Your task to perform on an android device: Open ESPN.com Image 0: 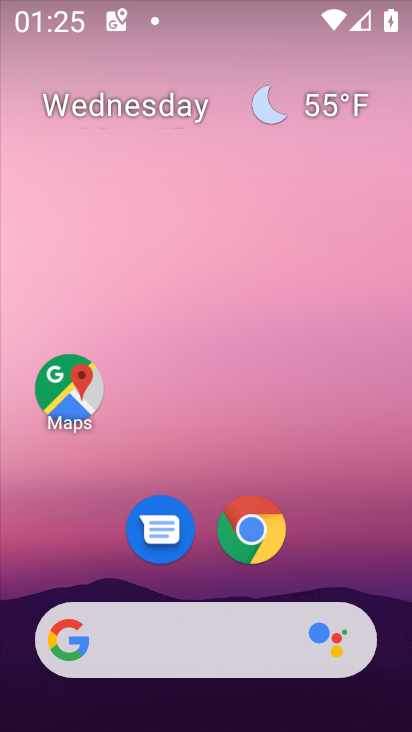
Step 0: click (251, 524)
Your task to perform on an android device: Open ESPN.com Image 1: 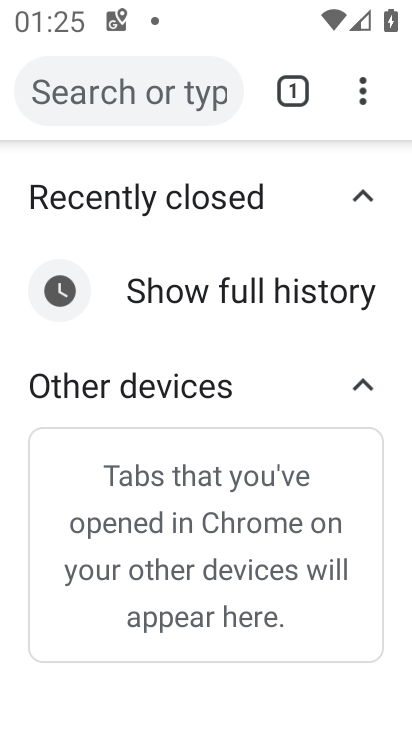
Step 1: click (363, 102)
Your task to perform on an android device: Open ESPN.com Image 2: 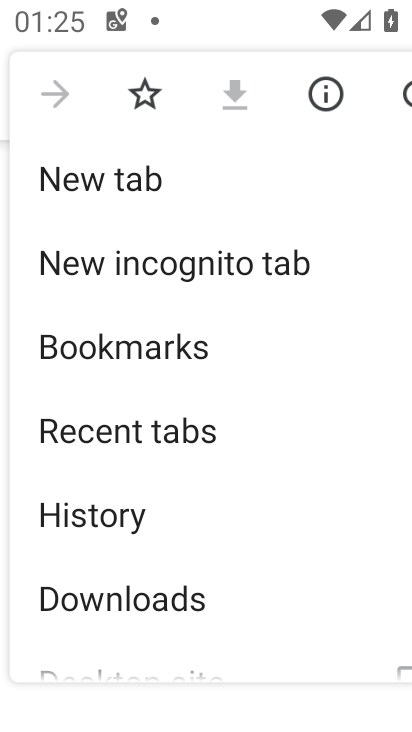
Step 2: click (120, 176)
Your task to perform on an android device: Open ESPN.com Image 3: 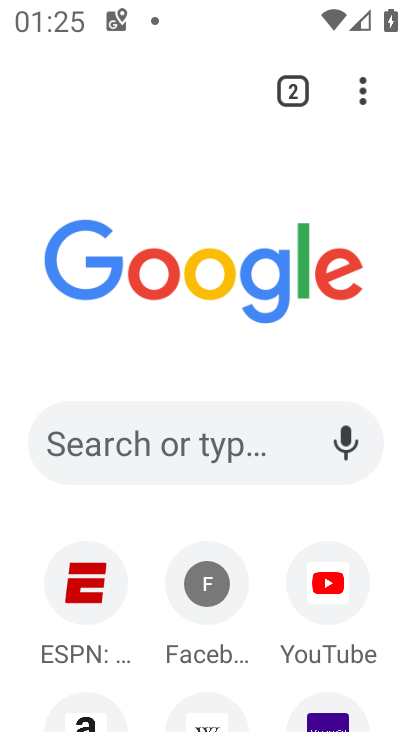
Step 3: click (79, 589)
Your task to perform on an android device: Open ESPN.com Image 4: 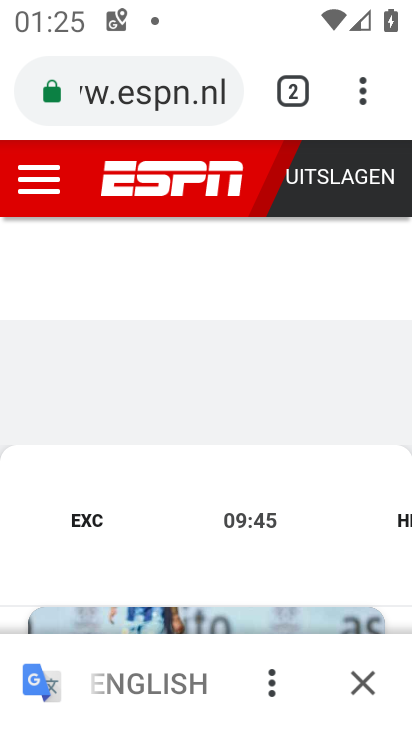
Step 4: task complete